Your task to perform on an android device: visit the assistant section in the google photos Image 0: 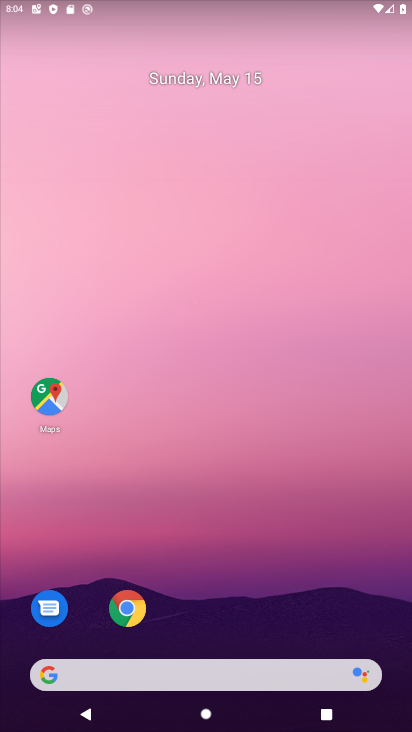
Step 0: drag from (380, 684) to (235, 291)
Your task to perform on an android device: visit the assistant section in the google photos Image 1: 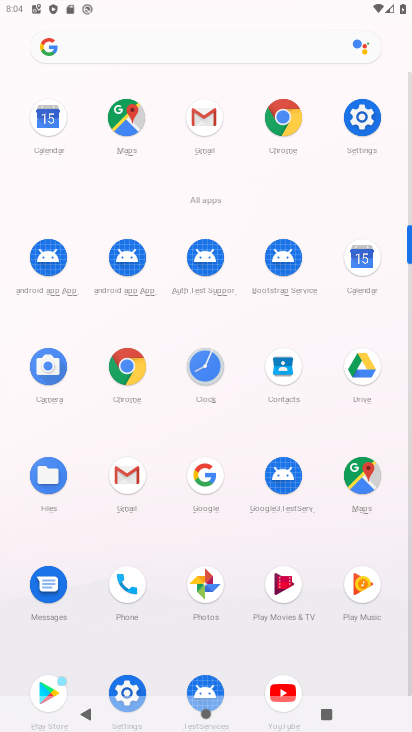
Step 1: click (201, 582)
Your task to perform on an android device: visit the assistant section in the google photos Image 2: 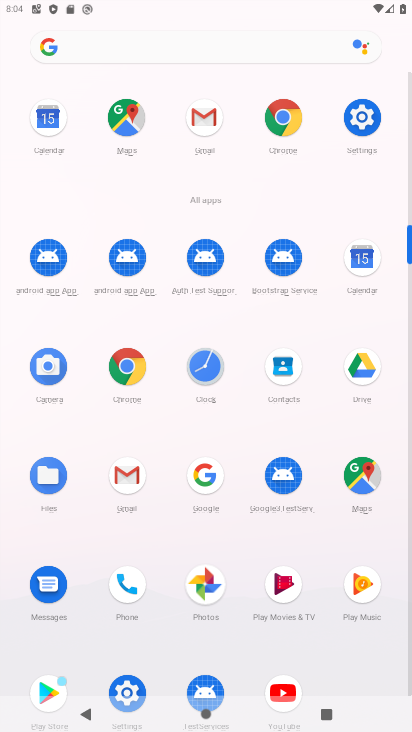
Step 2: click (200, 582)
Your task to perform on an android device: visit the assistant section in the google photos Image 3: 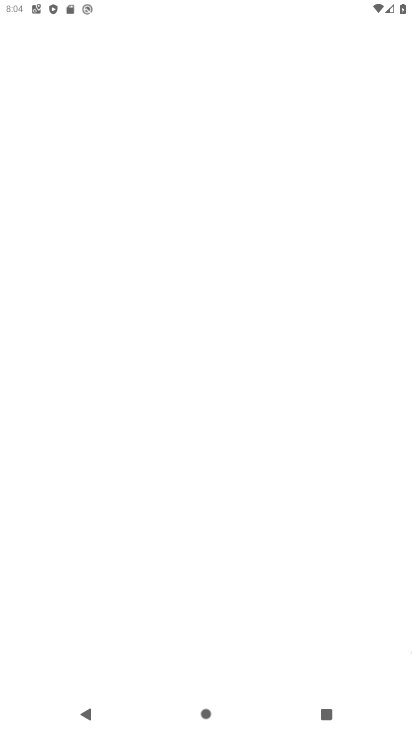
Step 3: click (201, 581)
Your task to perform on an android device: visit the assistant section in the google photos Image 4: 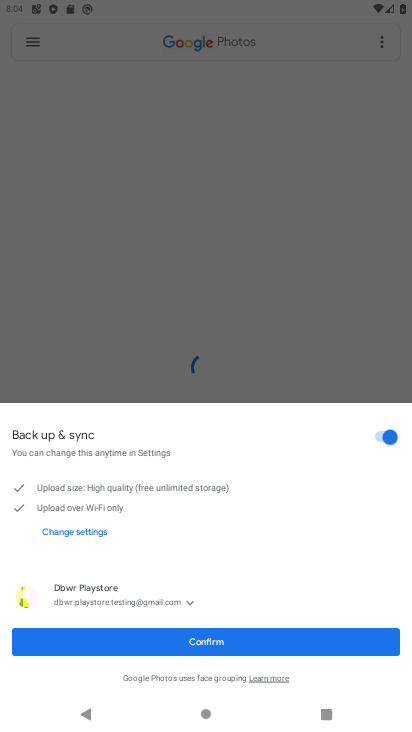
Step 4: click (207, 642)
Your task to perform on an android device: visit the assistant section in the google photos Image 5: 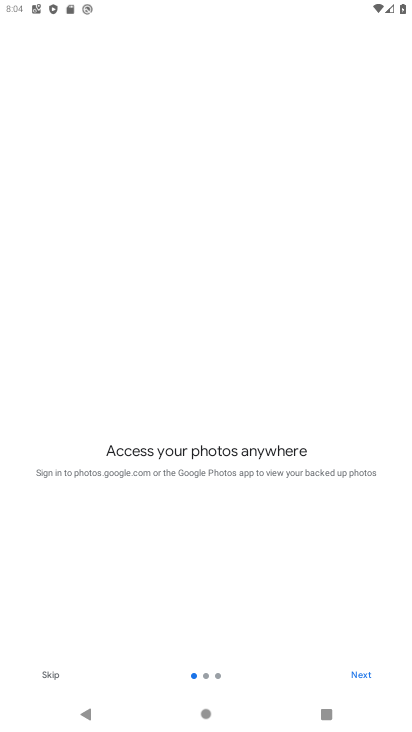
Step 5: click (352, 675)
Your task to perform on an android device: visit the assistant section in the google photos Image 6: 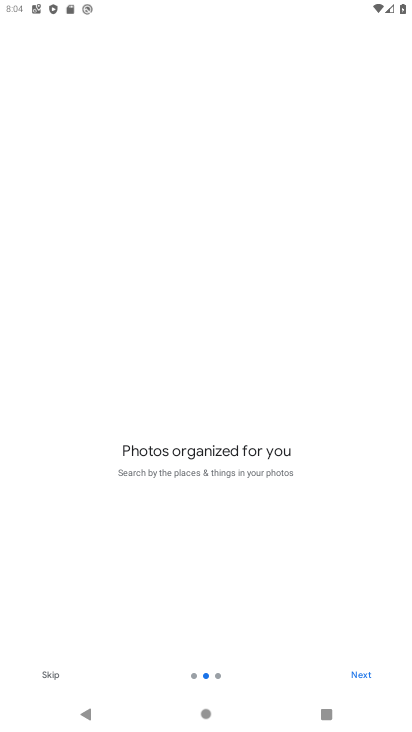
Step 6: click (353, 664)
Your task to perform on an android device: visit the assistant section in the google photos Image 7: 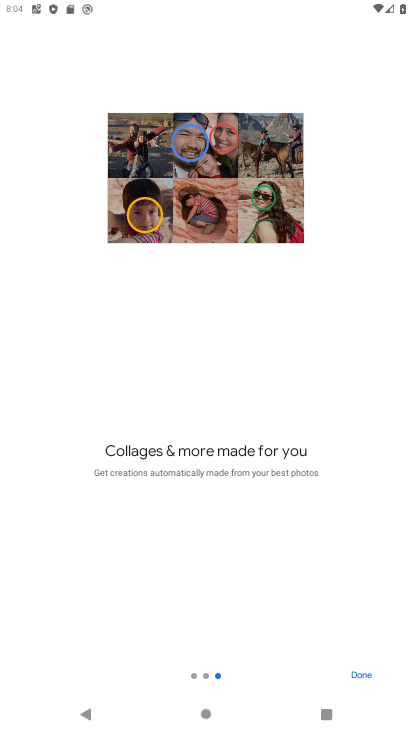
Step 7: click (354, 663)
Your task to perform on an android device: visit the assistant section in the google photos Image 8: 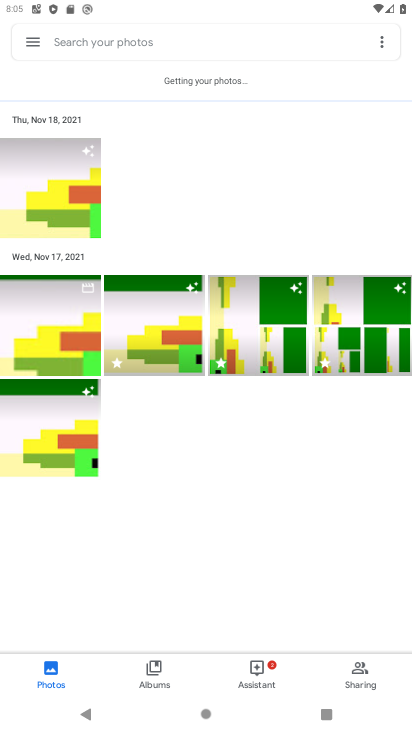
Step 8: click (254, 666)
Your task to perform on an android device: visit the assistant section in the google photos Image 9: 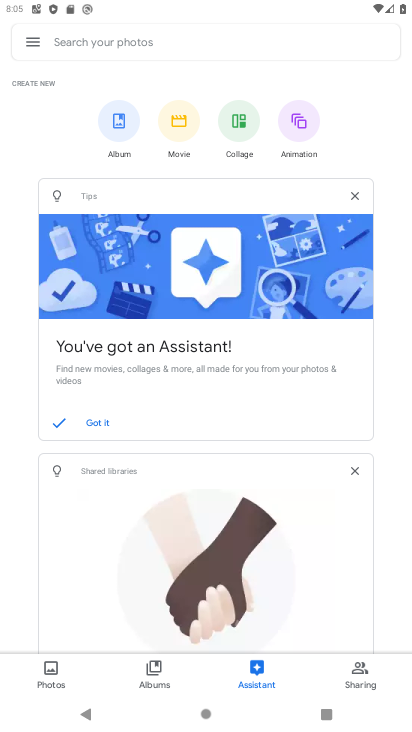
Step 9: task complete